Your task to perform on an android device: Open Youtube and go to "Your channel" Image 0: 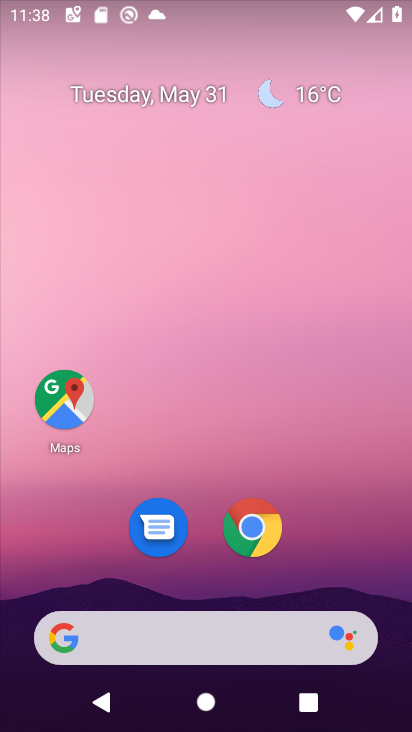
Step 0: drag from (330, 592) to (327, 18)
Your task to perform on an android device: Open Youtube and go to "Your channel" Image 1: 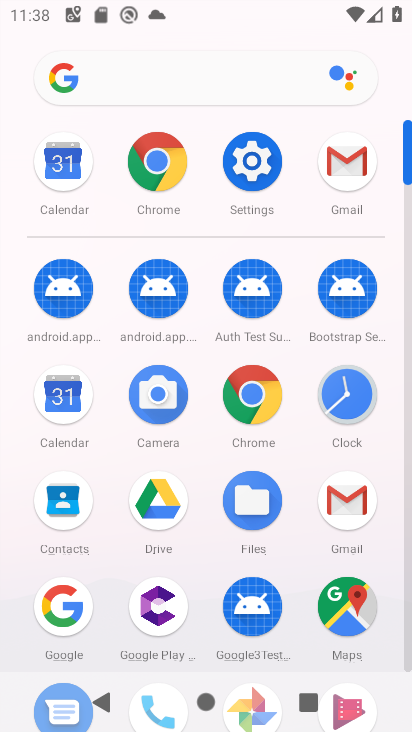
Step 1: click (410, 524)
Your task to perform on an android device: Open Youtube and go to "Your channel" Image 2: 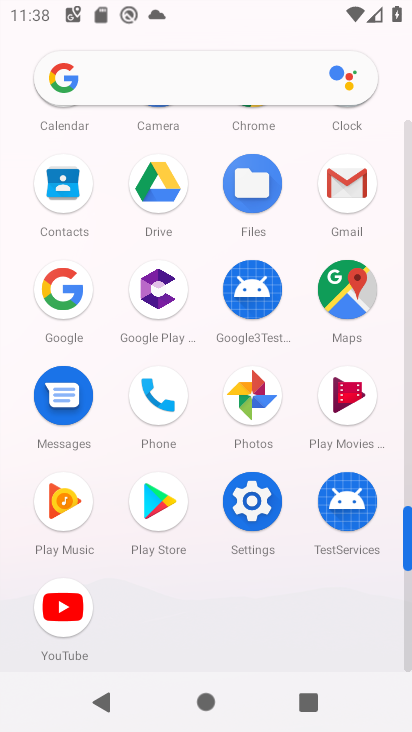
Step 2: click (61, 613)
Your task to perform on an android device: Open Youtube and go to "Your channel" Image 3: 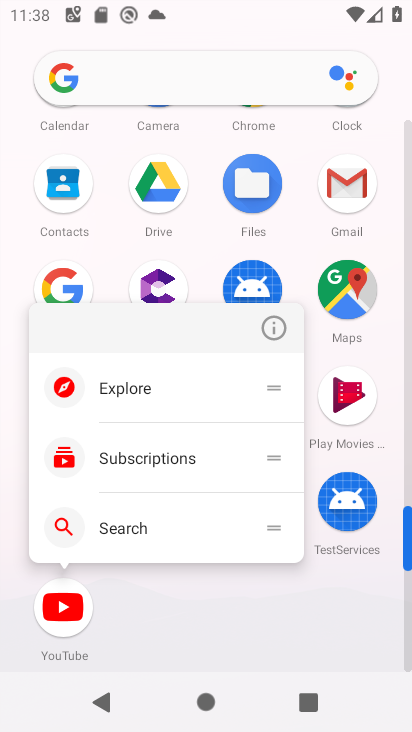
Step 3: click (55, 618)
Your task to perform on an android device: Open Youtube and go to "Your channel" Image 4: 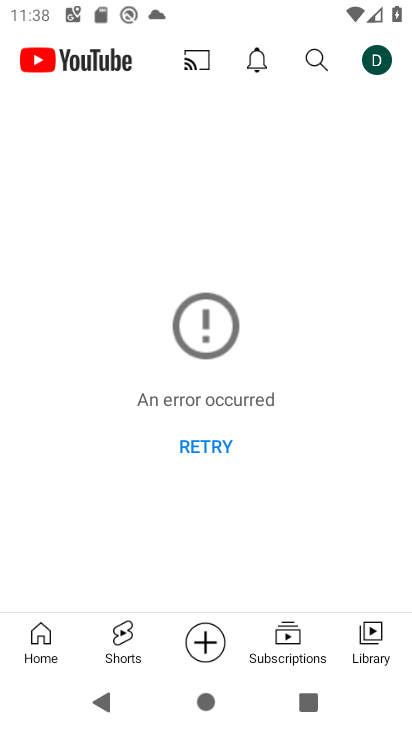
Step 4: click (371, 60)
Your task to perform on an android device: Open Youtube and go to "Your channel" Image 5: 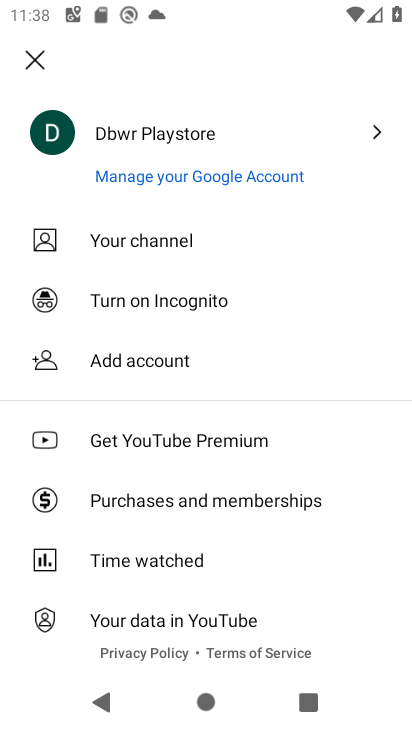
Step 5: click (139, 242)
Your task to perform on an android device: Open Youtube and go to "Your channel" Image 6: 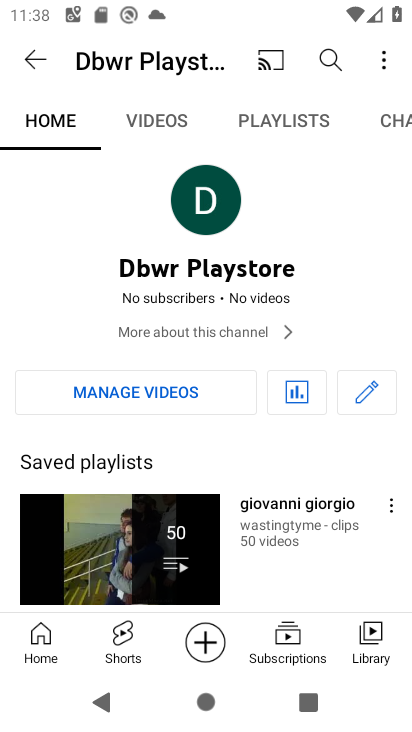
Step 6: task complete